Your task to perform on an android device: View the shopping cart on amazon. Search for "macbook air" on amazon, select the first entry, add it to the cart, then select checkout. Image 0: 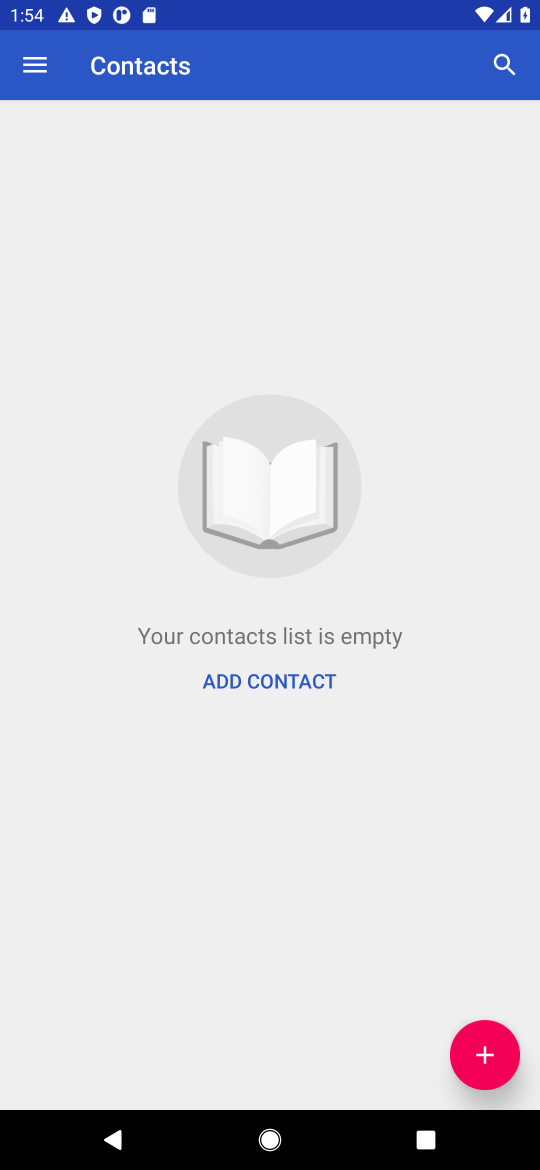
Step 0: click (215, 1033)
Your task to perform on an android device: View the shopping cart on amazon. Search for "macbook air" on amazon, select the first entry, add it to the cart, then select checkout. Image 1: 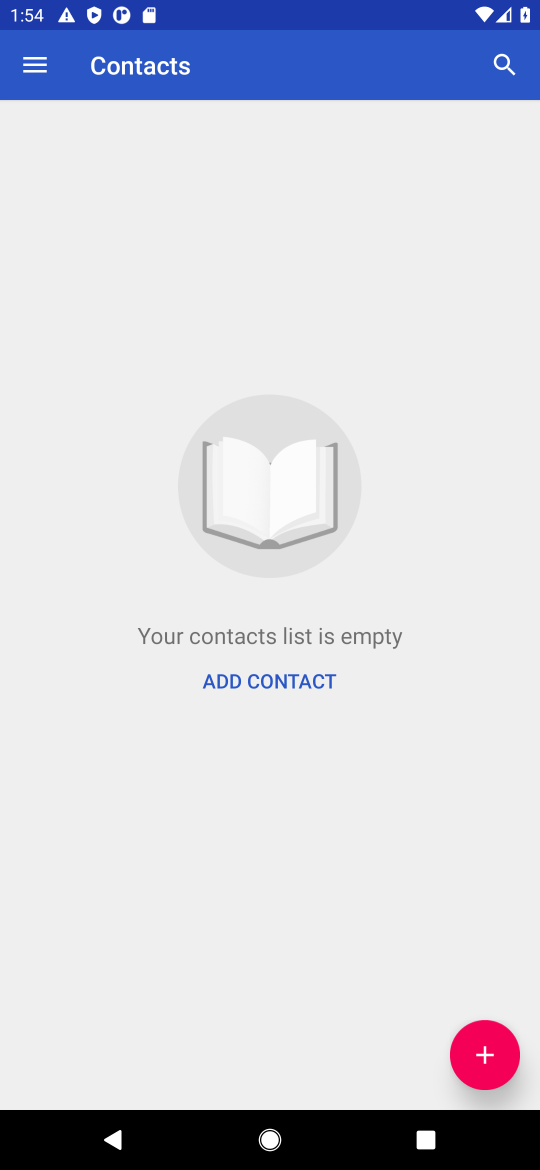
Step 1: press home button
Your task to perform on an android device: View the shopping cart on amazon. Search for "macbook air" on amazon, select the first entry, add it to the cart, then select checkout. Image 2: 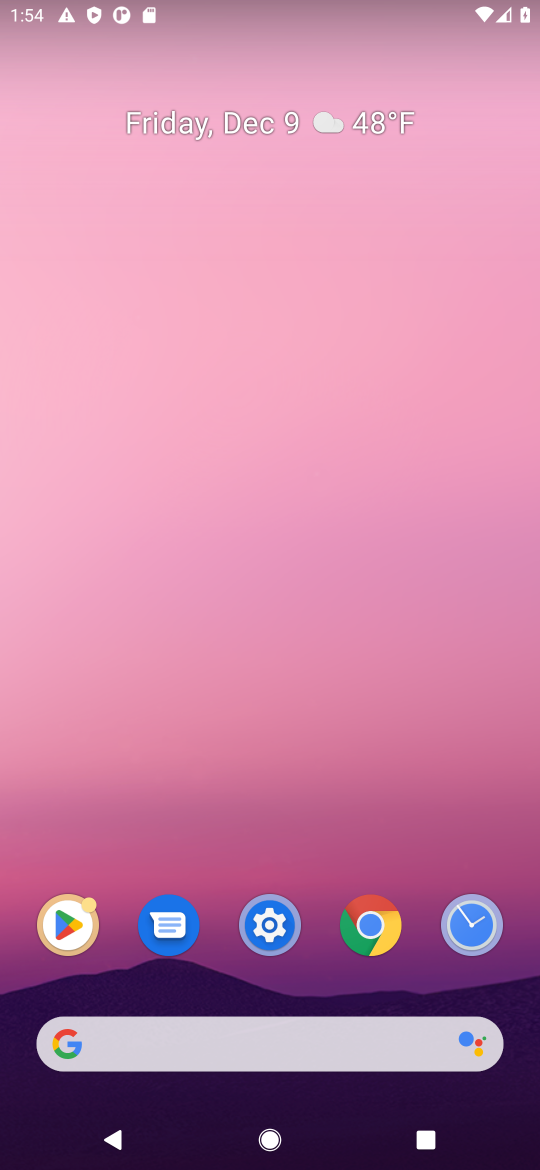
Step 2: click (351, 1052)
Your task to perform on an android device: View the shopping cart on amazon. Search for "macbook air" on amazon, select the first entry, add it to the cart, then select checkout. Image 3: 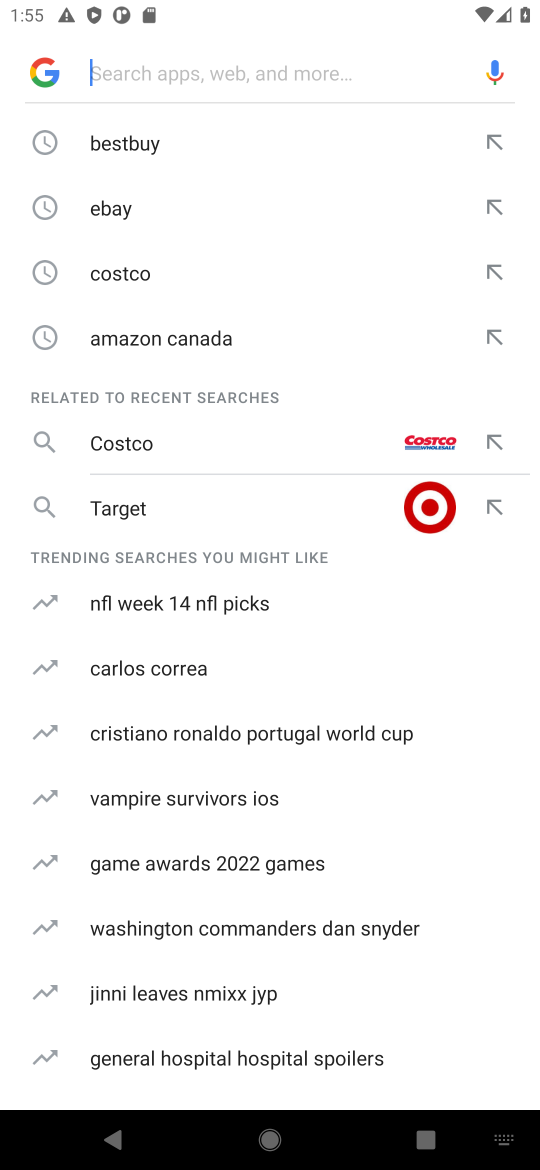
Step 3: type "amazon"
Your task to perform on an android device: View the shopping cart on amazon. Search for "macbook air" on amazon, select the first entry, add it to the cart, then select checkout. Image 4: 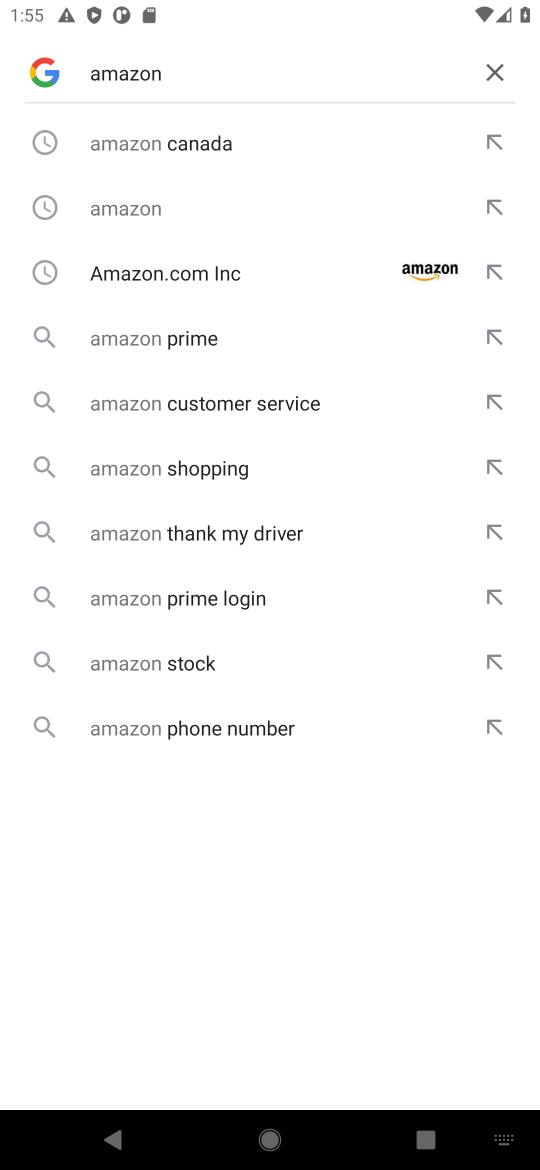
Step 4: click (230, 267)
Your task to perform on an android device: View the shopping cart on amazon. Search for "macbook air" on amazon, select the first entry, add it to the cart, then select checkout. Image 5: 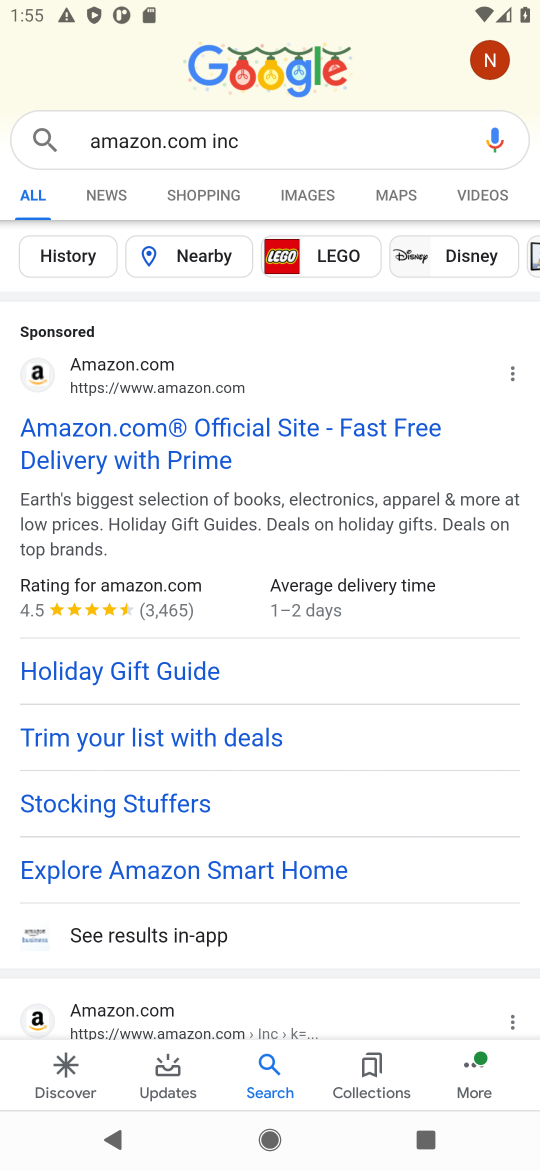
Step 5: click (62, 451)
Your task to perform on an android device: View the shopping cart on amazon. Search for "macbook air" on amazon, select the first entry, add it to the cart, then select checkout. Image 6: 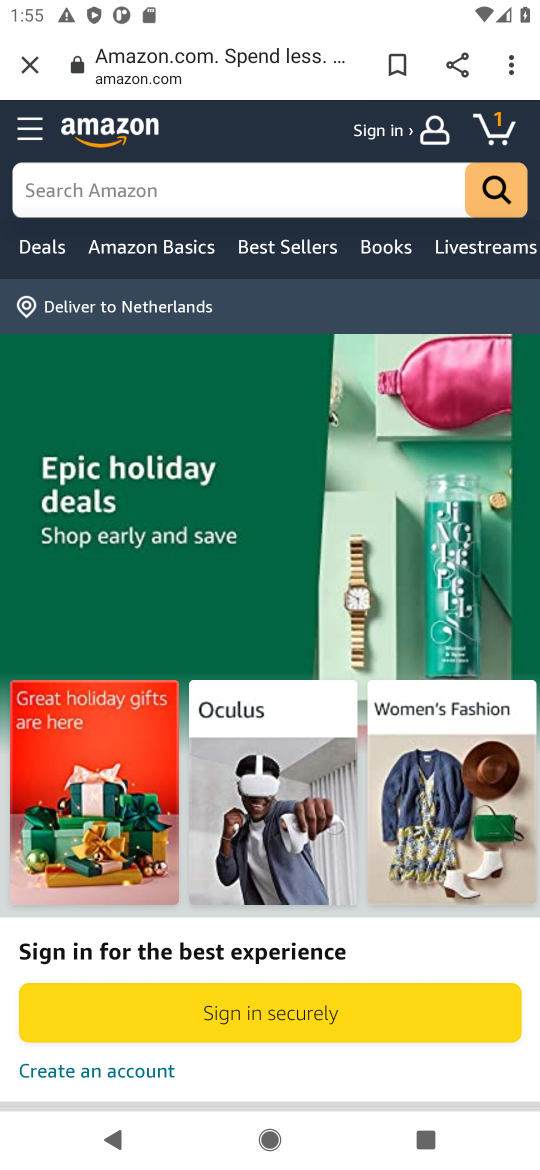
Step 6: click (297, 178)
Your task to perform on an android device: View the shopping cart on amazon. Search for "macbook air" on amazon, select the first entry, add it to the cart, then select checkout. Image 7: 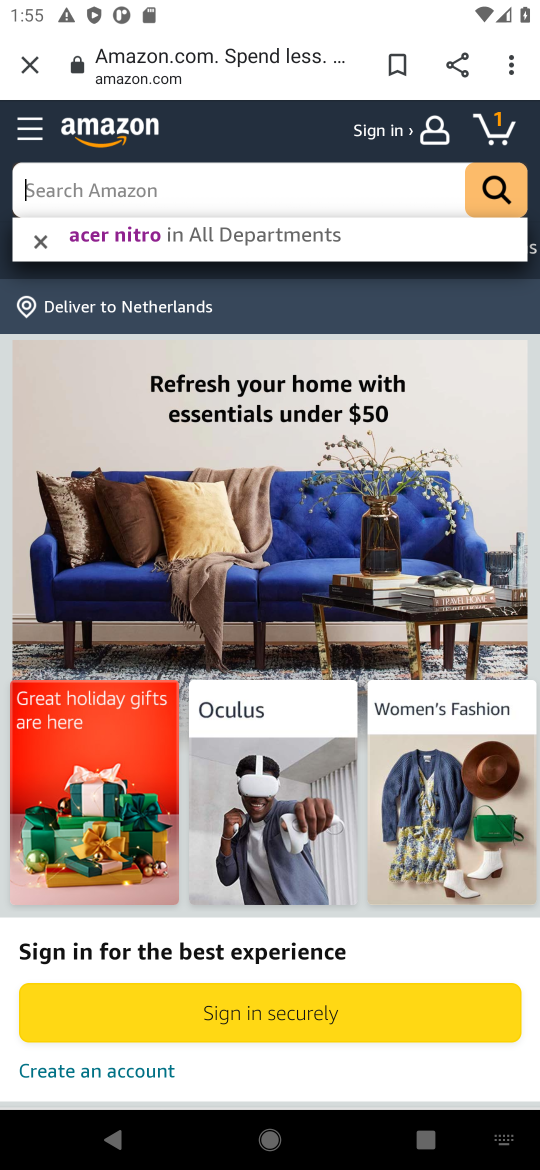
Step 7: type "macbook air"
Your task to perform on an android device: View the shopping cart on amazon. Search for "macbook air" on amazon, select the first entry, add it to the cart, then select checkout. Image 8: 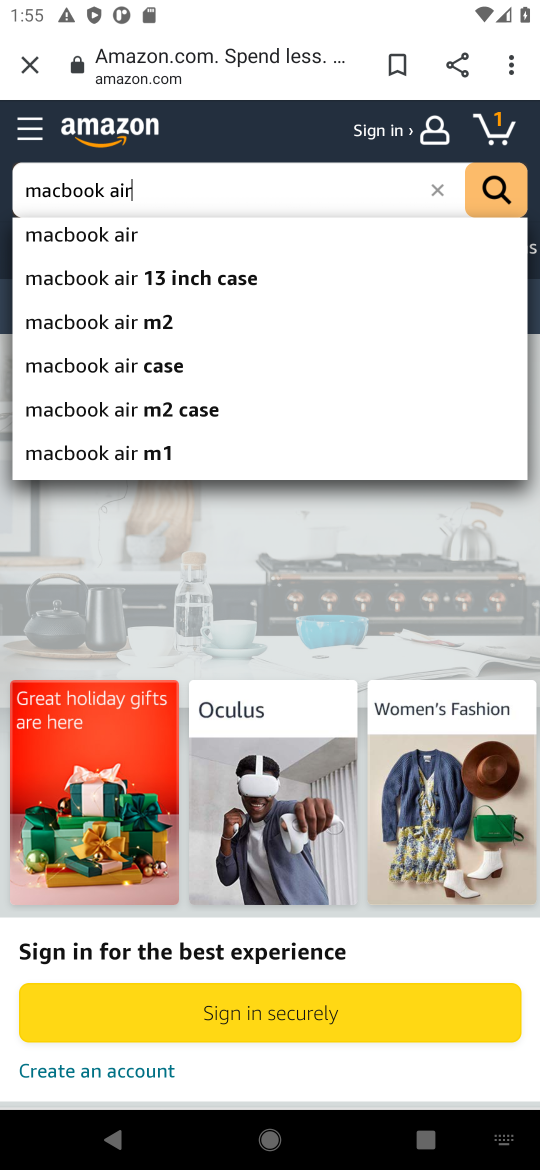
Step 8: click (504, 189)
Your task to perform on an android device: View the shopping cart on amazon. Search for "macbook air" on amazon, select the first entry, add it to the cart, then select checkout. Image 9: 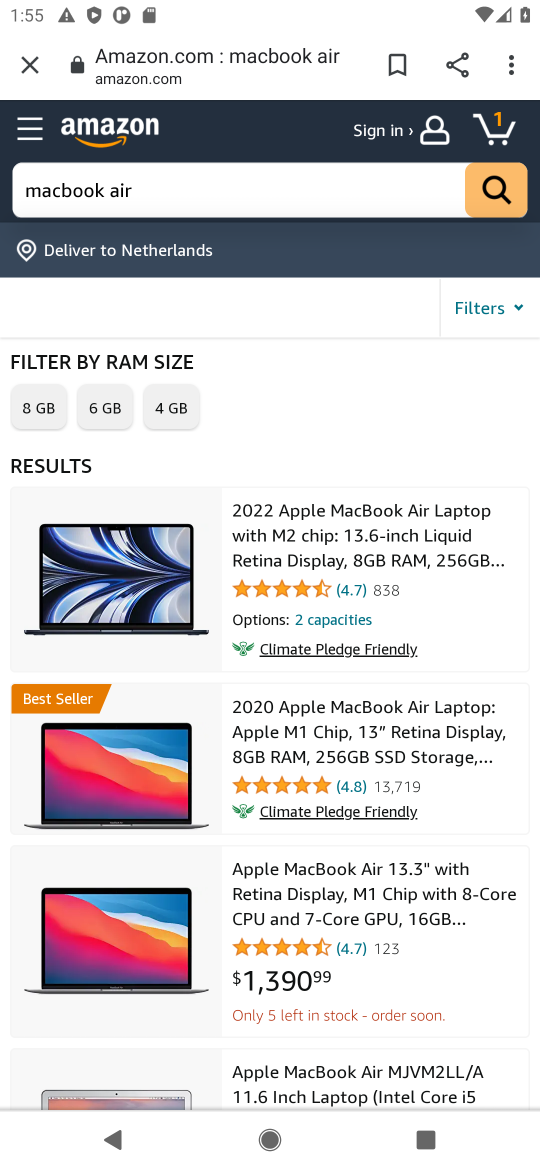
Step 9: click (342, 565)
Your task to perform on an android device: View the shopping cart on amazon. Search for "macbook air" on amazon, select the first entry, add it to the cart, then select checkout. Image 10: 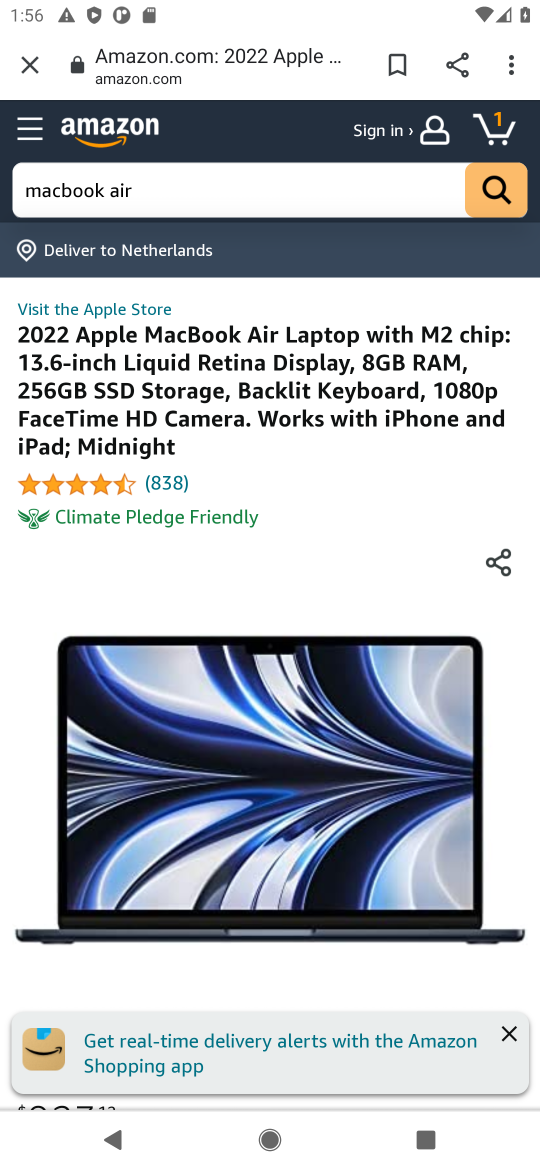
Step 10: drag from (333, 780) to (342, 312)
Your task to perform on an android device: View the shopping cart on amazon. Search for "macbook air" on amazon, select the first entry, add it to the cart, then select checkout. Image 11: 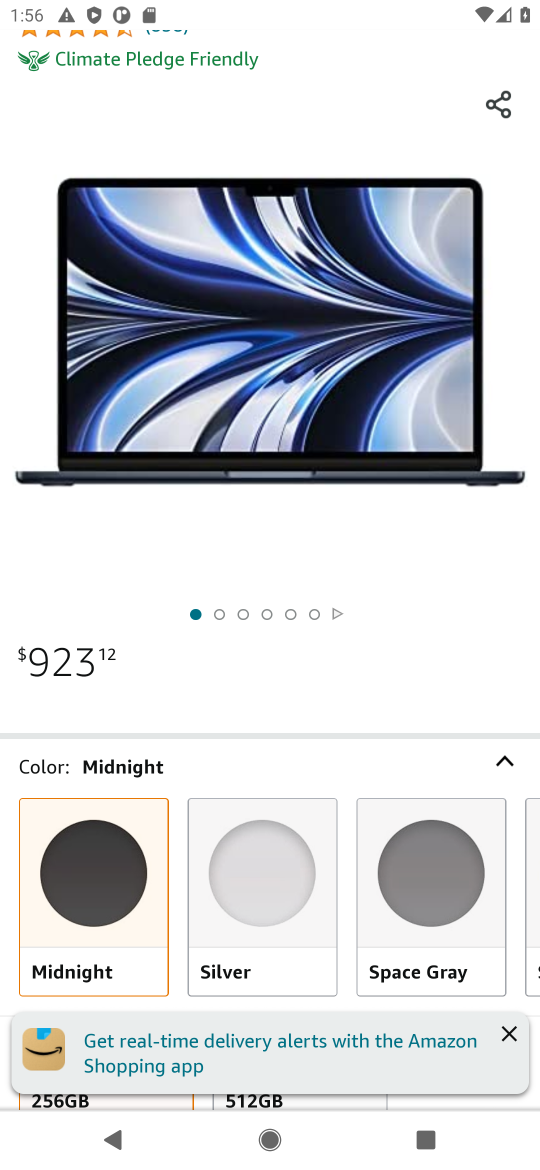
Step 11: drag from (347, 681) to (368, 97)
Your task to perform on an android device: View the shopping cart on amazon. Search for "macbook air" on amazon, select the first entry, add it to the cart, then select checkout. Image 12: 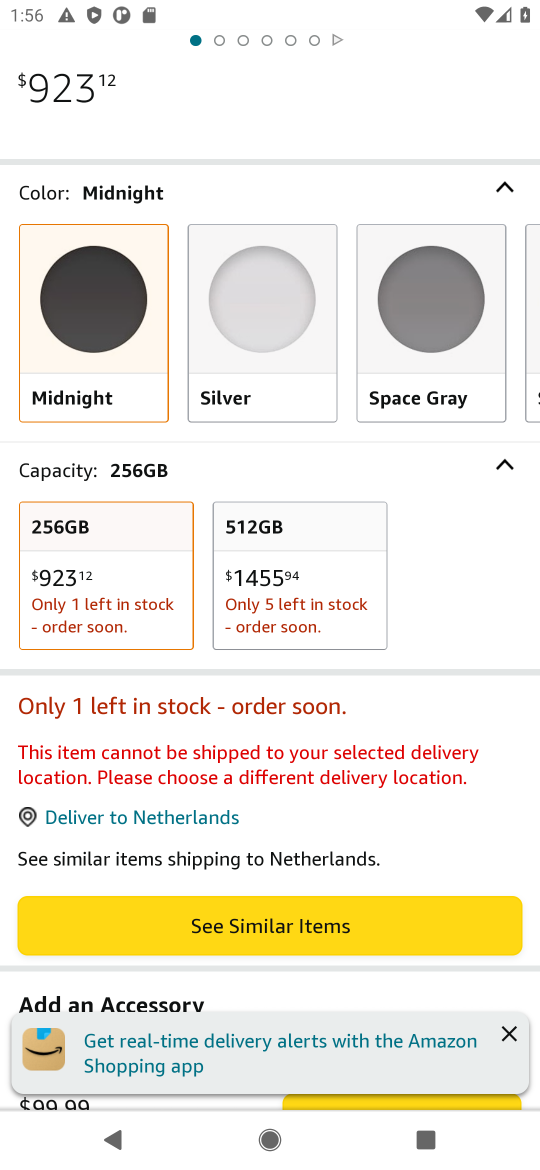
Step 12: click (517, 1052)
Your task to perform on an android device: View the shopping cart on amazon. Search for "macbook air" on amazon, select the first entry, add it to the cart, then select checkout. Image 13: 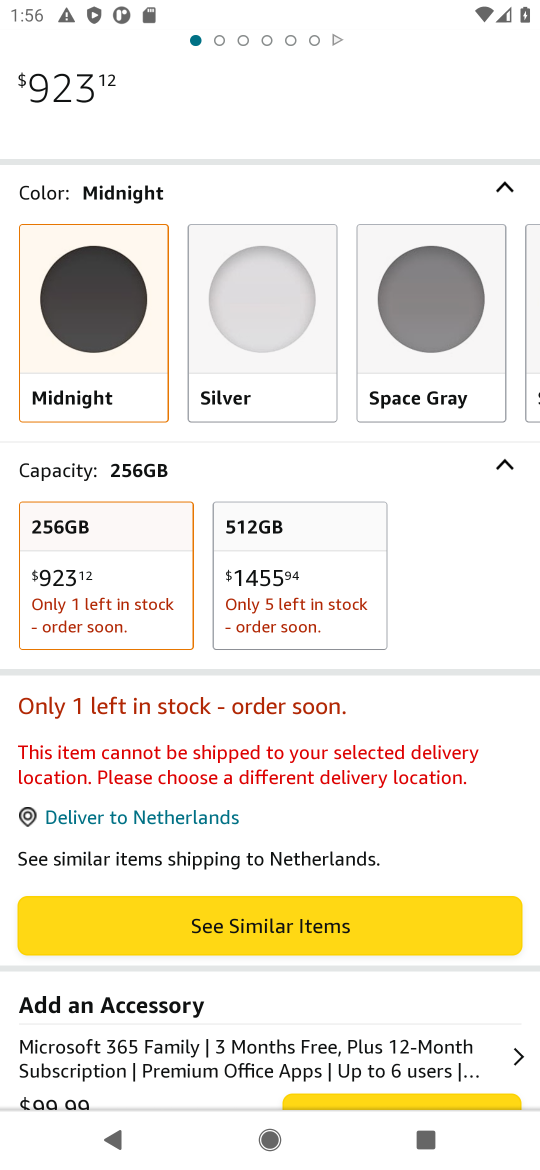
Step 13: click (431, 1103)
Your task to perform on an android device: View the shopping cart on amazon. Search for "macbook air" on amazon, select the first entry, add it to the cart, then select checkout. Image 14: 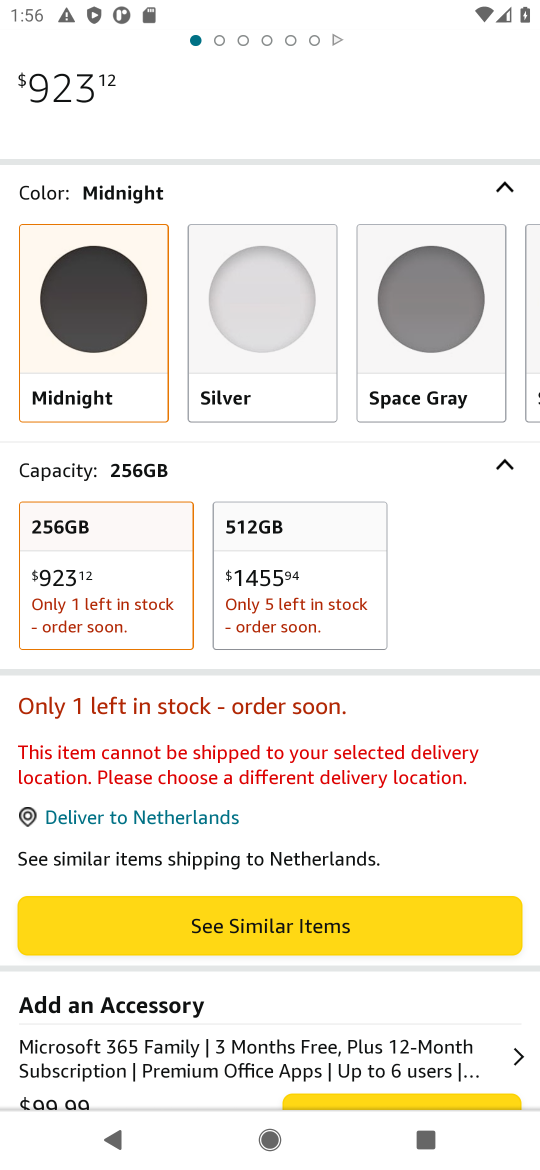
Step 14: task complete